Your task to perform on an android device: find which apps use the phone's location Image 0: 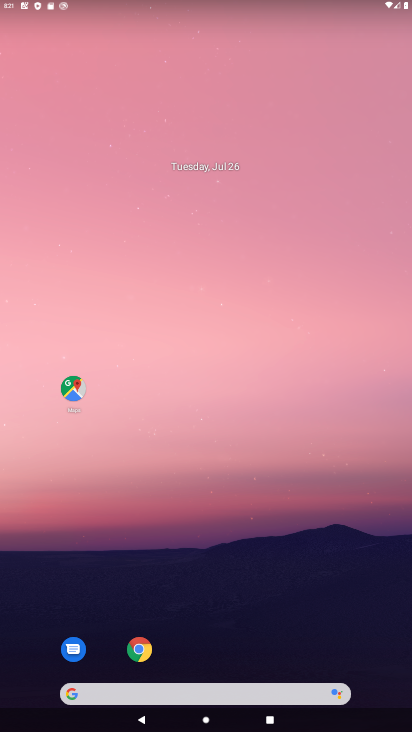
Step 0: drag from (217, 566) to (240, 158)
Your task to perform on an android device: find which apps use the phone's location Image 1: 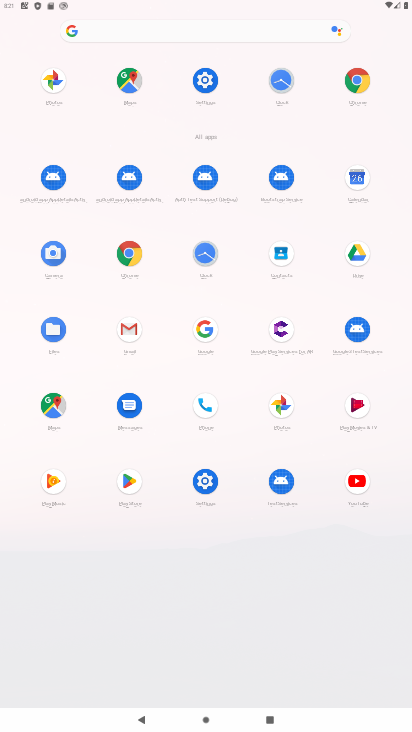
Step 1: click (204, 82)
Your task to perform on an android device: find which apps use the phone's location Image 2: 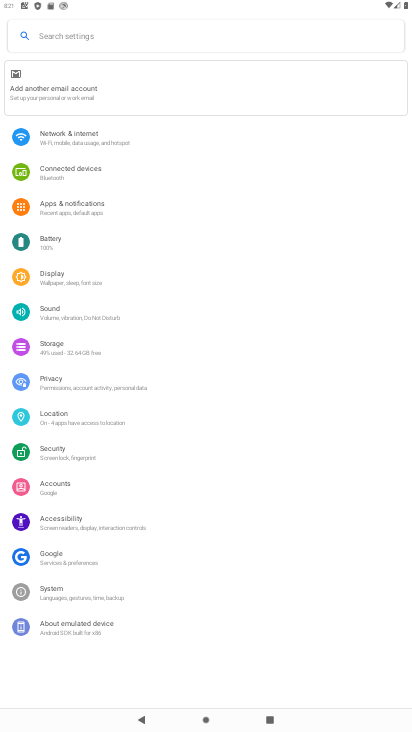
Step 2: click (73, 417)
Your task to perform on an android device: find which apps use the phone's location Image 3: 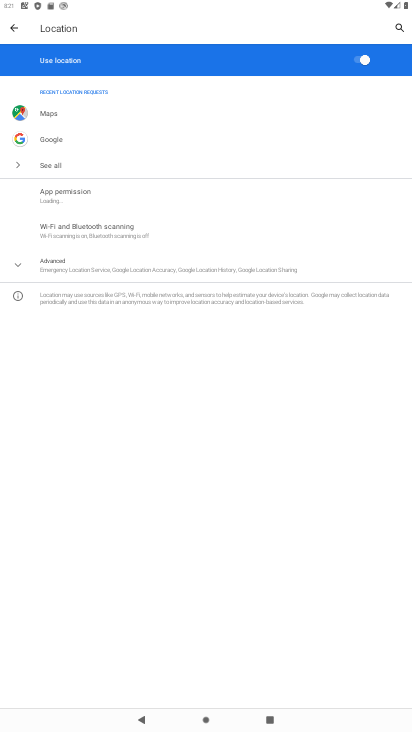
Step 3: click (59, 171)
Your task to perform on an android device: find which apps use the phone's location Image 4: 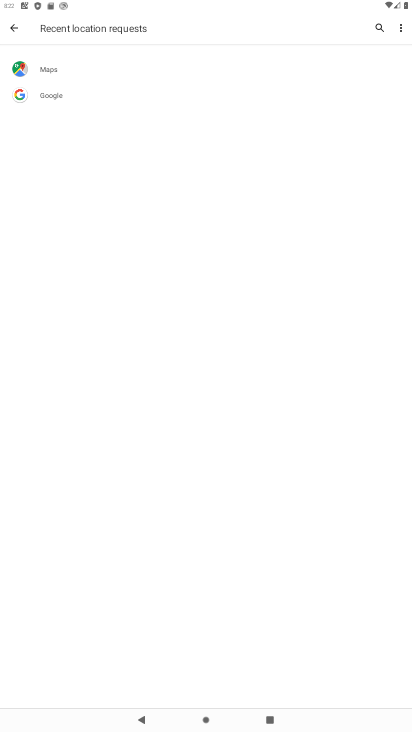
Step 4: task complete